Your task to perform on an android device: change the clock display to digital Image 0: 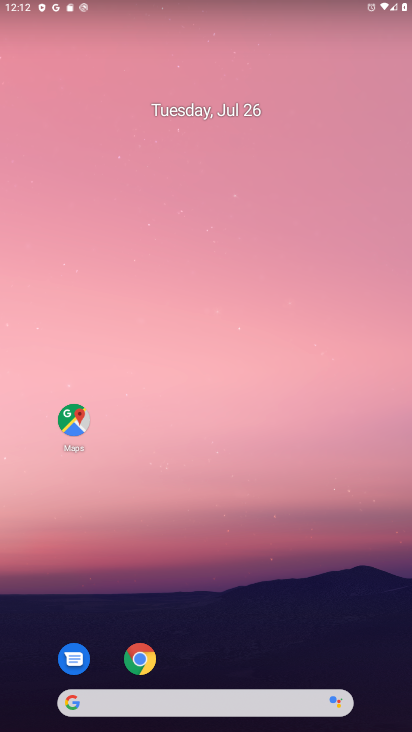
Step 0: drag from (233, 636) to (110, 89)
Your task to perform on an android device: change the clock display to digital Image 1: 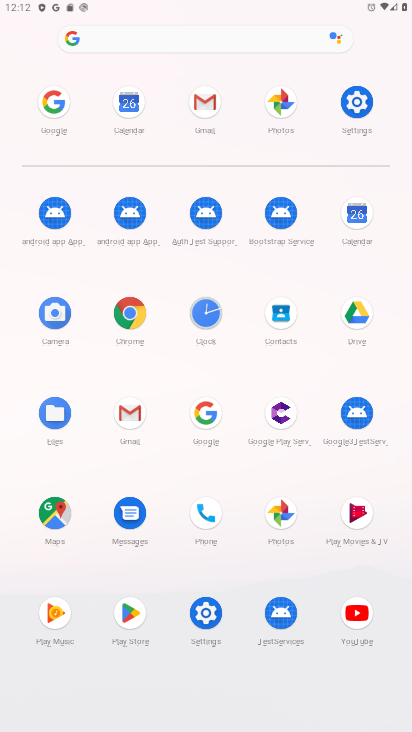
Step 1: click (203, 317)
Your task to perform on an android device: change the clock display to digital Image 2: 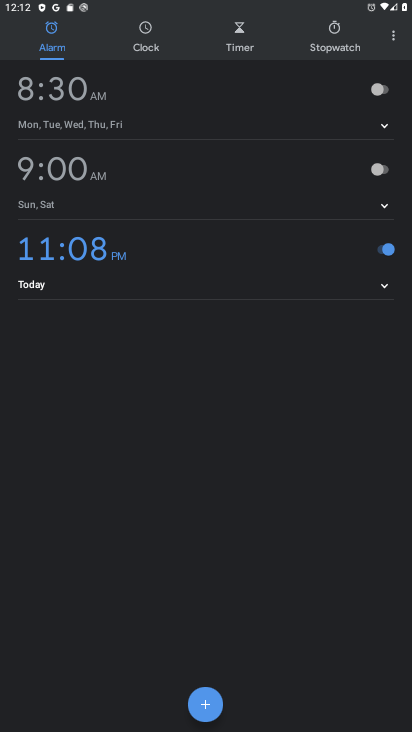
Step 2: click (387, 36)
Your task to perform on an android device: change the clock display to digital Image 3: 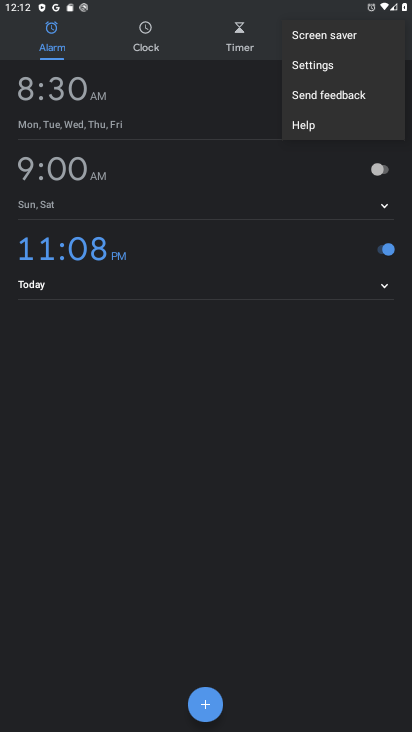
Step 3: click (326, 67)
Your task to perform on an android device: change the clock display to digital Image 4: 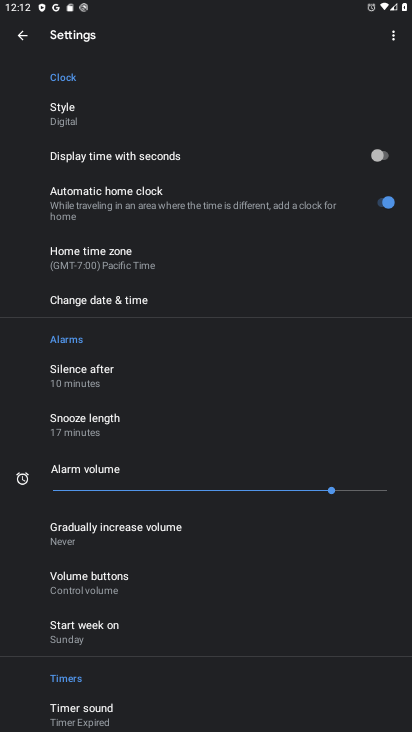
Step 4: task complete